Your task to perform on an android device: turn on improve location accuracy Image 0: 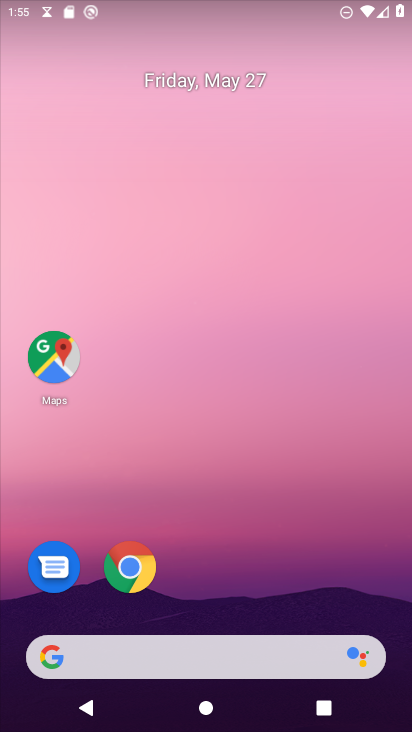
Step 0: drag from (242, 609) to (173, 82)
Your task to perform on an android device: turn on improve location accuracy Image 1: 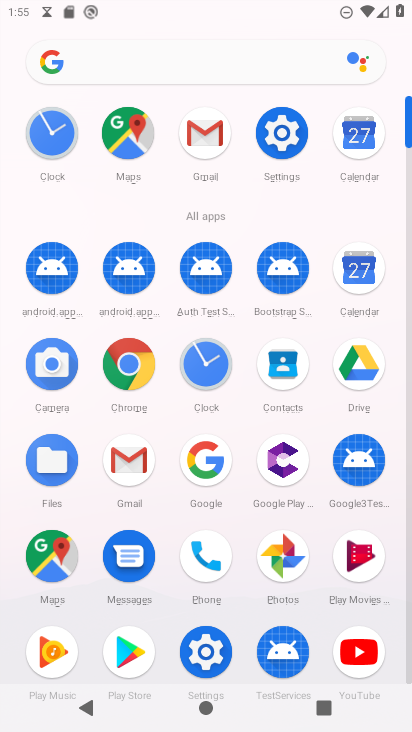
Step 1: click (278, 148)
Your task to perform on an android device: turn on improve location accuracy Image 2: 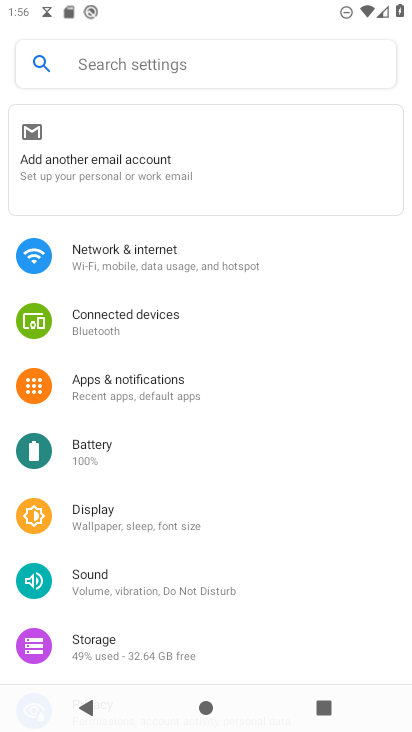
Step 2: drag from (149, 621) to (133, 159)
Your task to perform on an android device: turn on improve location accuracy Image 3: 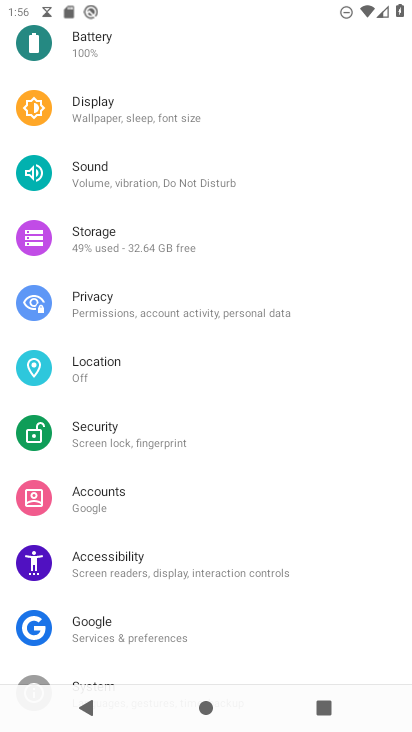
Step 3: click (79, 373)
Your task to perform on an android device: turn on improve location accuracy Image 4: 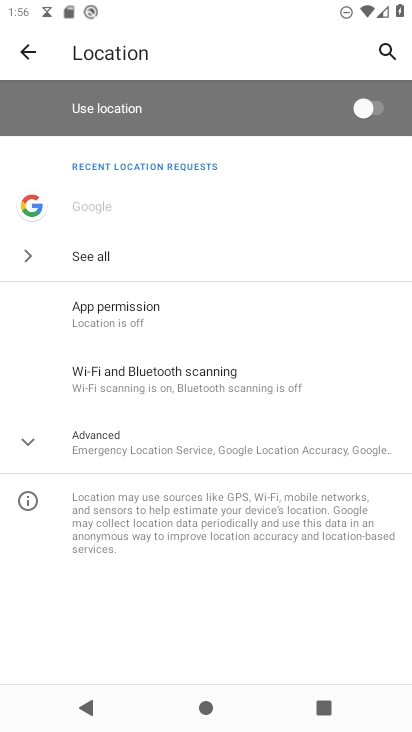
Step 4: click (145, 435)
Your task to perform on an android device: turn on improve location accuracy Image 5: 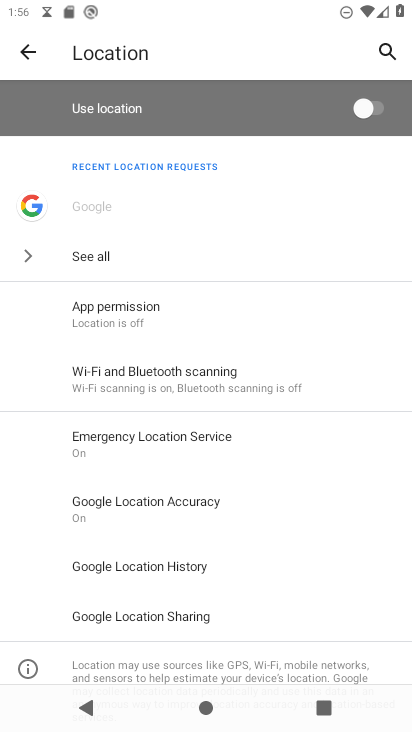
Step 5: click (161, 510)
Your task to perform on an android device: turn on improve location accuracy Image 6: 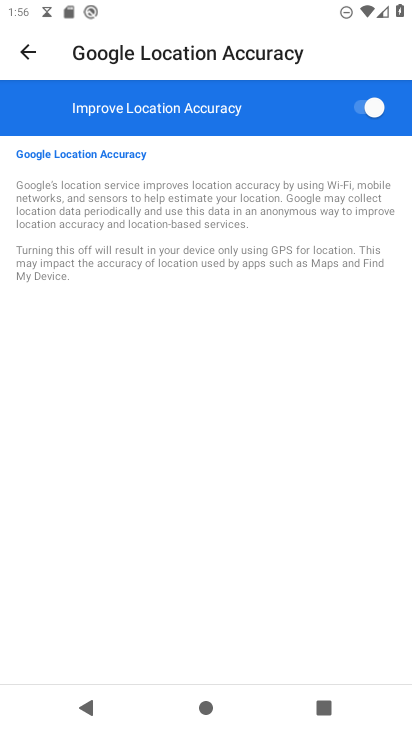
Step 6: task complete